Your task to perform on an android device: stop showing notifications on the lock screen Image 0: 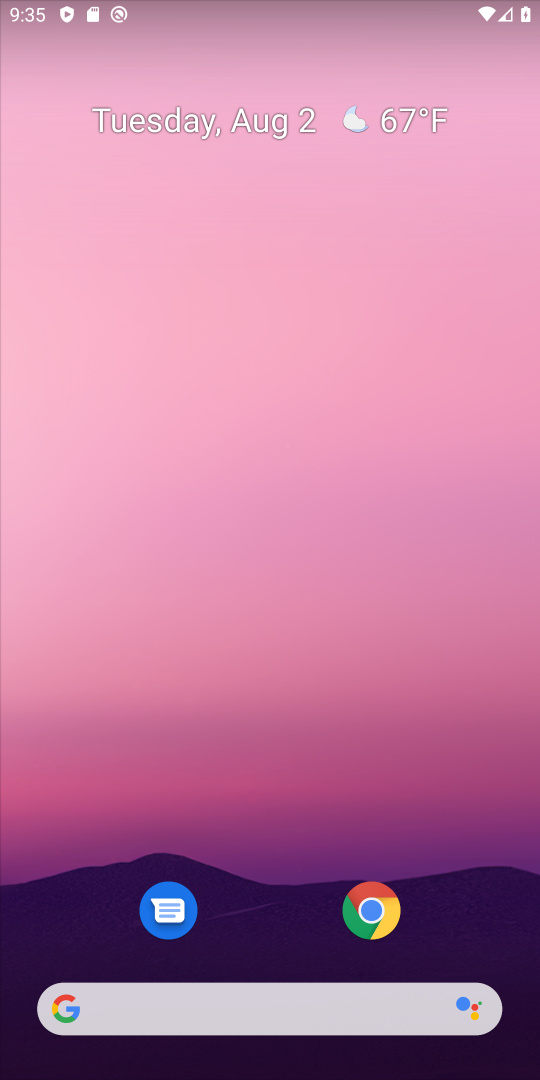
Step 0: drag from (308, 825) to (315, 416)
Your task to perform on an android device: stop showing notifications on the lock screen Image 1: 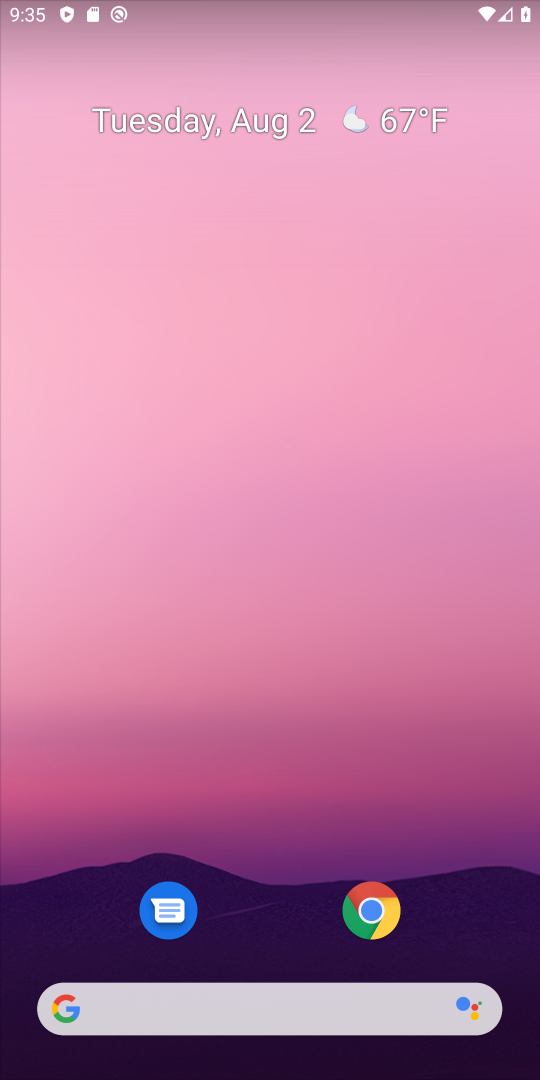
Step 1: drag from (279, 925) to (333, 314)
Your task to perform on an android device: stop showing notifications on the lock screen Image 2: 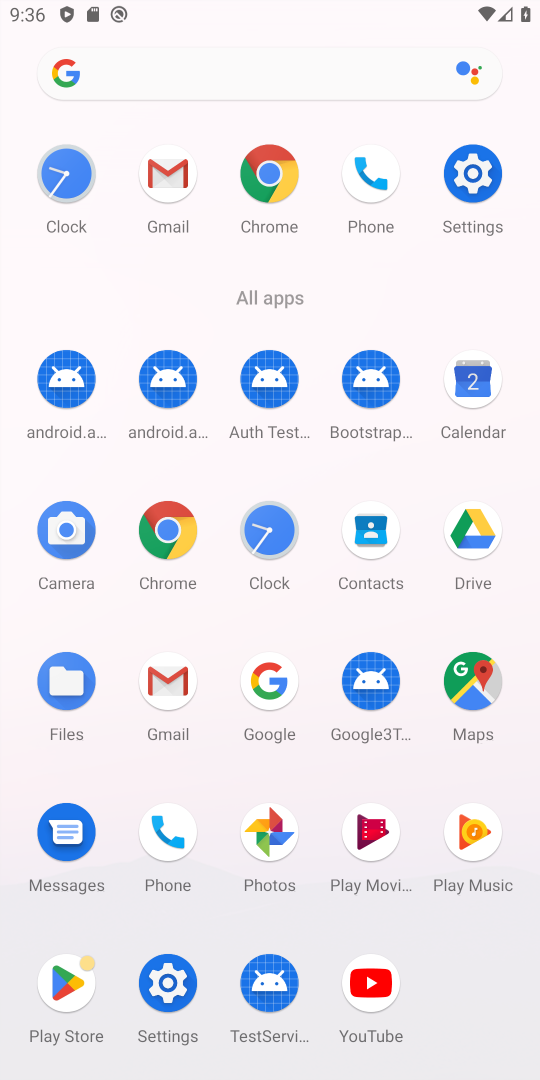
Step 2: click (481, 164)
Your task to perform on an android device: stop showing notifications on the lock screen Image 3: 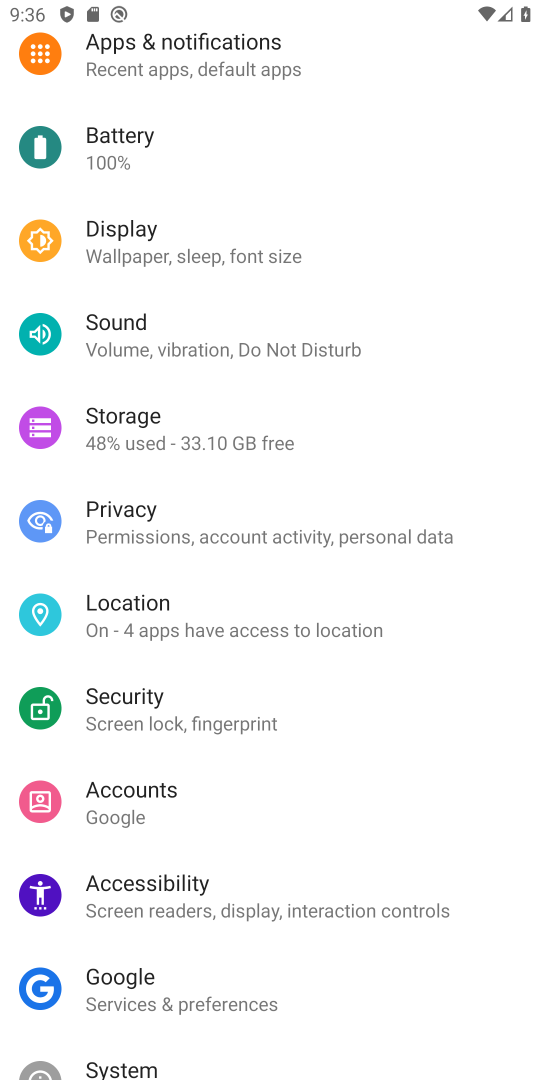
Step 3: drag from (171, 649) to (163, 978)
Your task to perform on an android device: stop showing notifications on the lock screen Image 4: 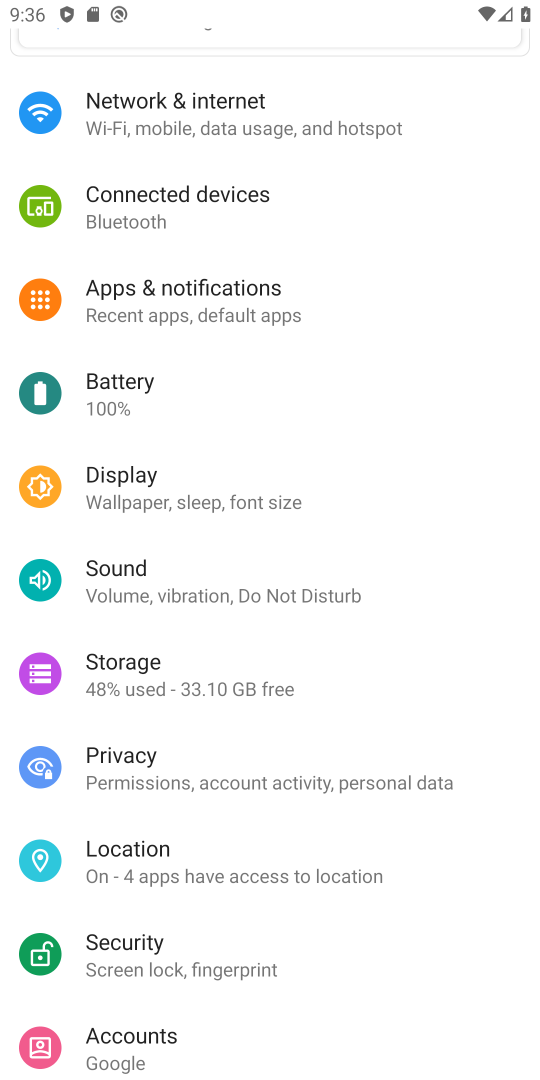
Step 4: click (214, 280)
Your task to perform on an android device: stop showing notifications on the lock screen Image 5: 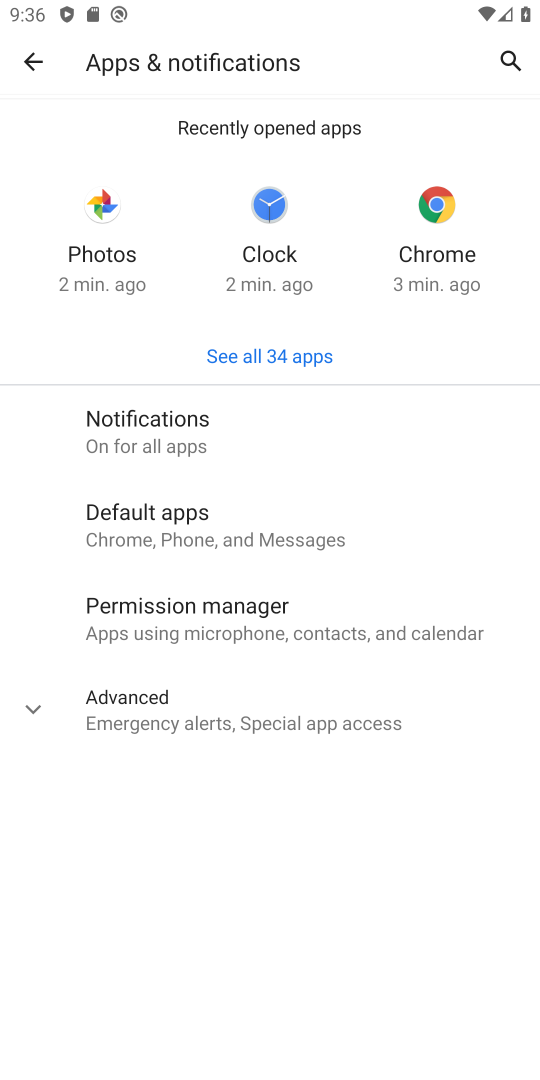
Step 5: click (204, 442)
Your task to perform on an android device: stop showing notifications on the lock screen Image 6: 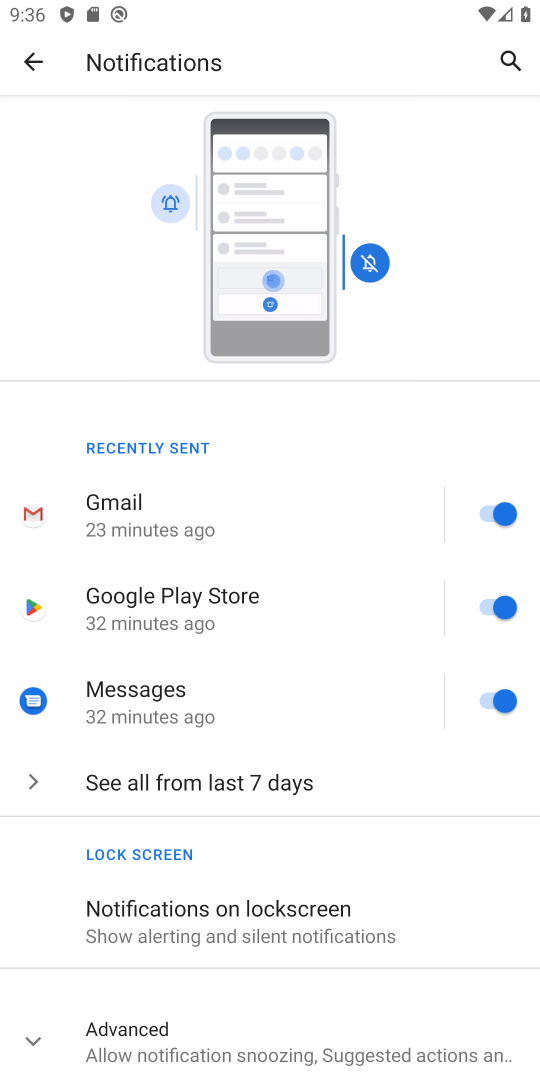
Step 6: click (217, 918)
Your task to perform on an android device: stop showing notifications on the lock screen Image 7: 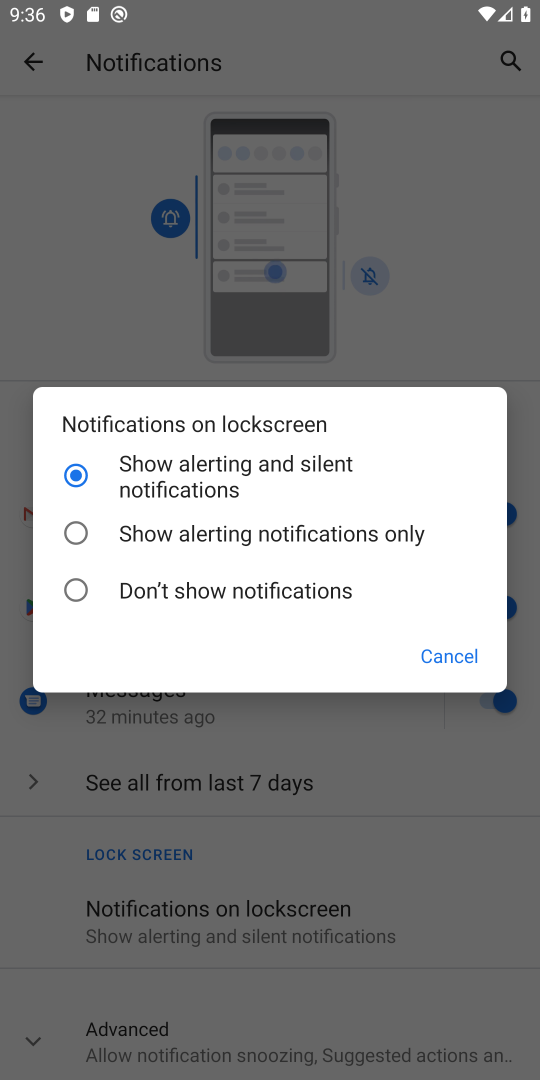
Step 7: click (190, 578)
Your task to perform on an android device: stop showing notifications on the lock screen Image 8: 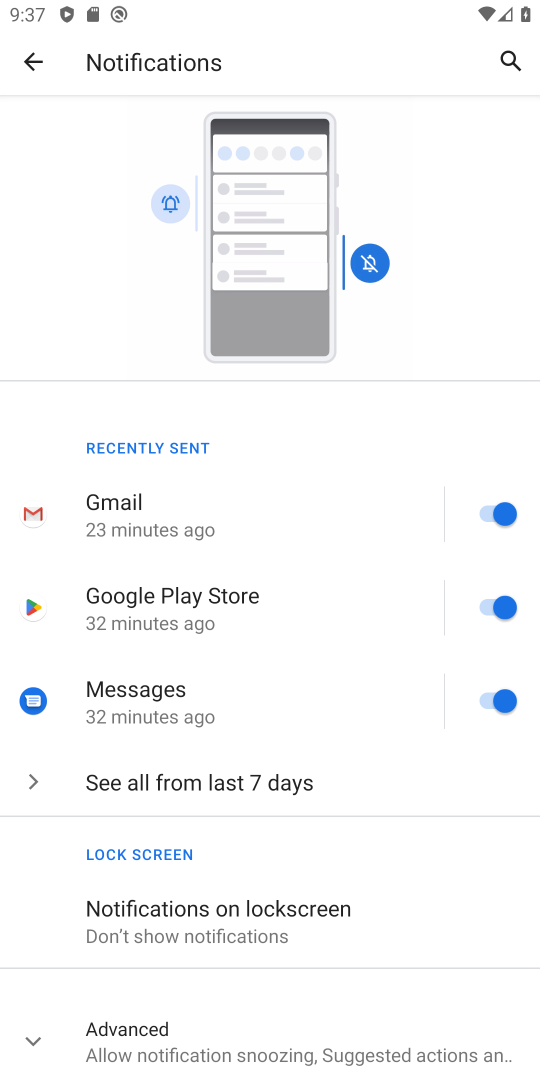
Step 8: task complete